Your task to perform on an android device: open wifi settings Image 0: 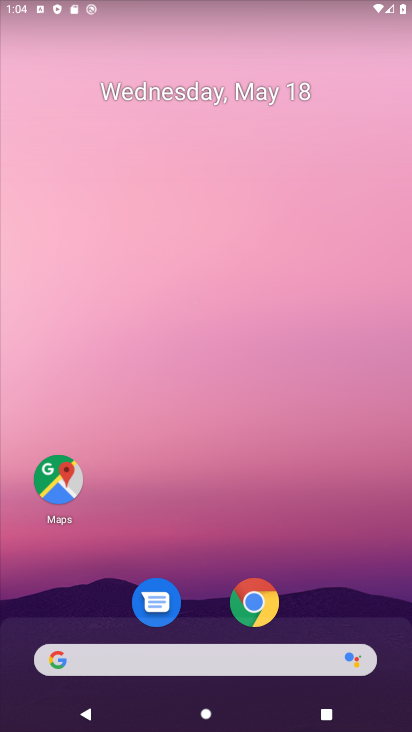
Step 0: drag from (214, 518) to (248, 19)
Your task to perform on an android device: open wifi settings Image 1: 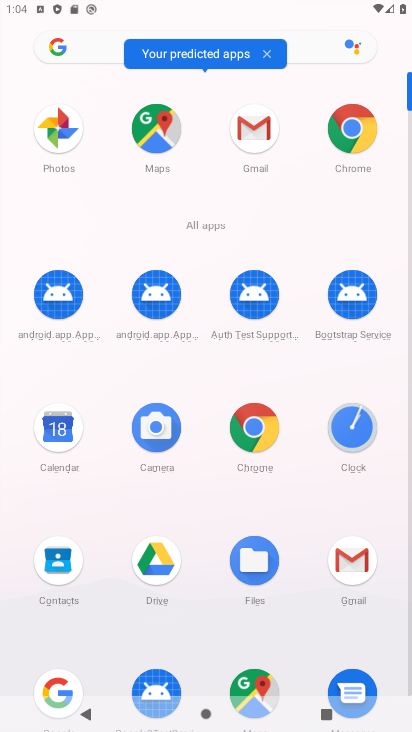
Step 1: drag from (188, 610) to (220, 281)
Your task to perform on an android device: open wifi settings Image 2: 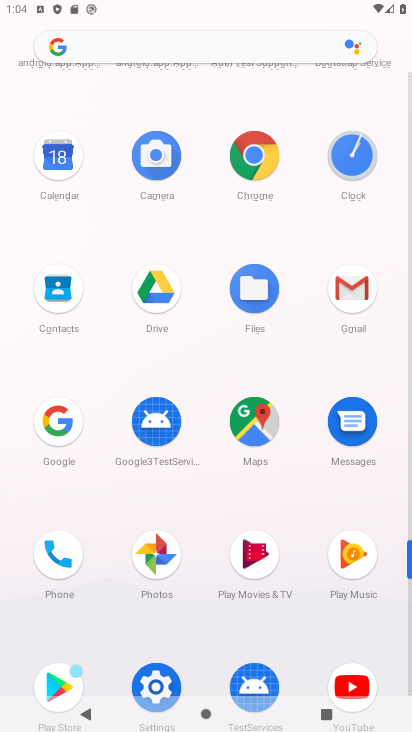
Step 2: click (147, 675)
Your task to perform on an android device: open wifi settings Image 3: 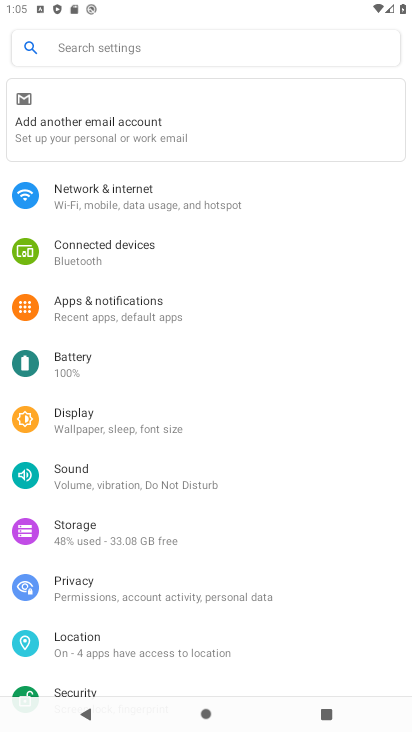
Step 3: click (117, 194)
Your task to perform on an android device: open wifi settings Image 4: 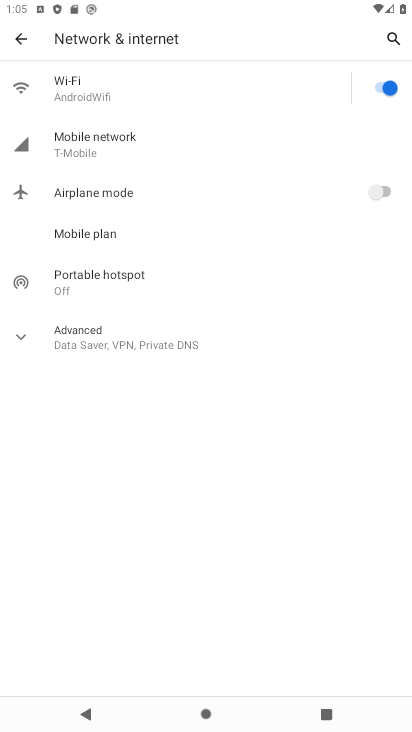
Step 4: task complete